Your task to perform on an android device: Open Amazon Image 0: 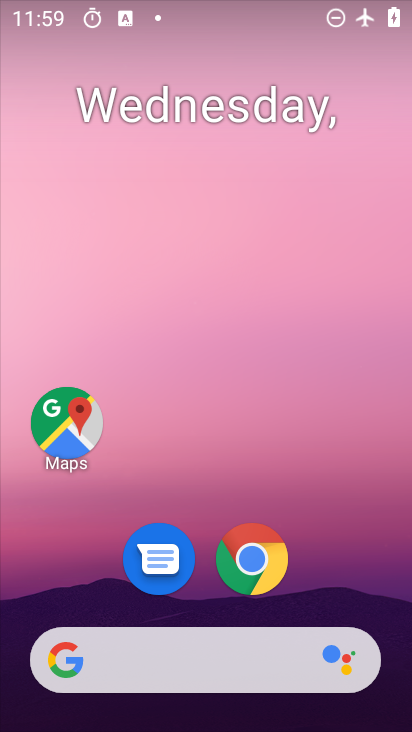
Step 0: drag from (234, 621) to (225, 196)
Your task to perform on an android device: Open Amazon Image 1: 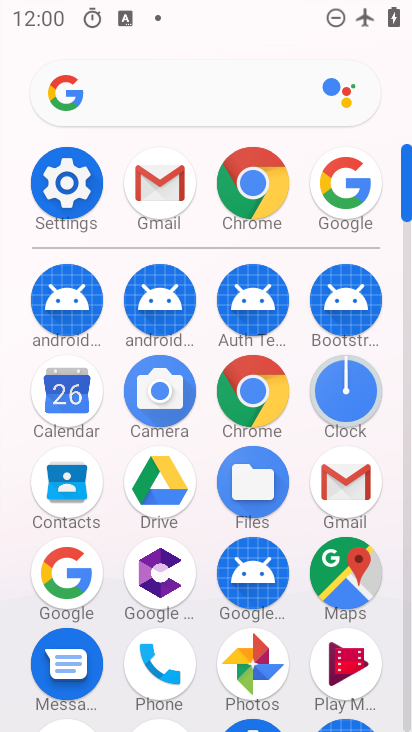
Step 1: click (265, 198)
Your task to perform on an android device: Open Amazon Image 2: 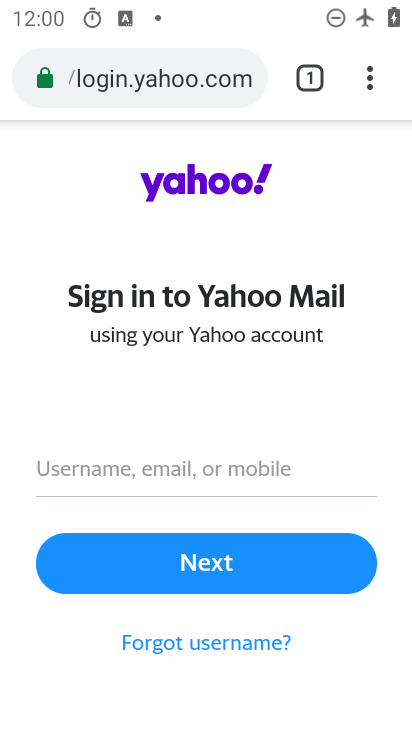
Step 2: click (224, 87)
Your task to perform on an android device: Open Amazon Image 3: 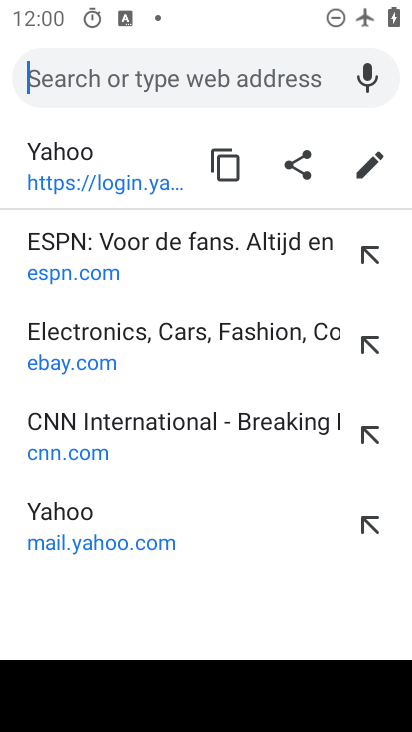
Step 3: type "amazon"
Your task to perform on an android device: Open Amazon Image 4: 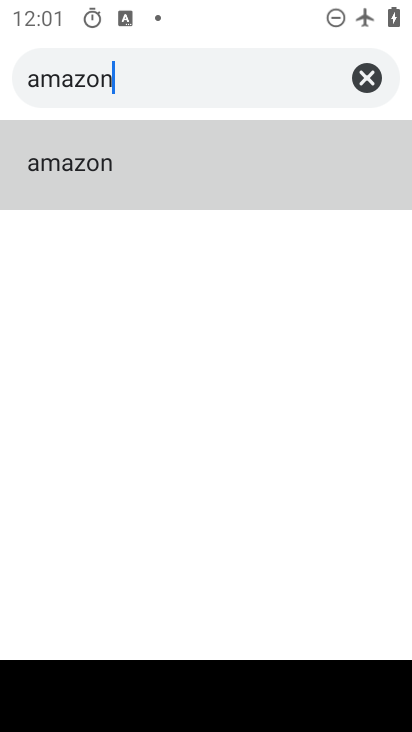
Step 4: click (109, 176)
Your task to perform on an android device: Open Amazon Image 5: 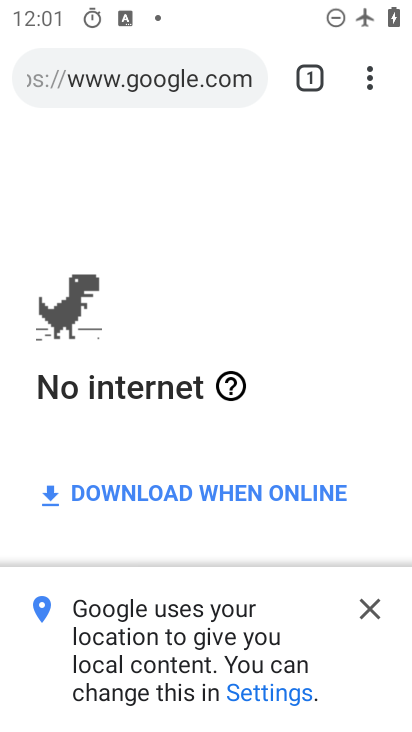
Step 5: task complete